Your task to perform on an android device: stop showing notifications on the lock screen Image 0: 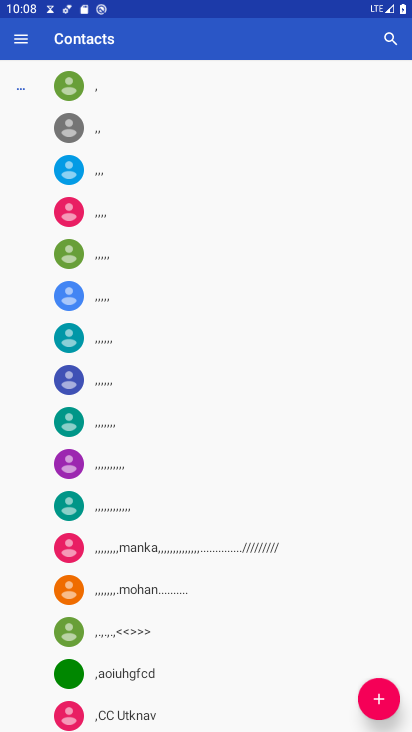
Step 0: press home button
Your task to perform on an android device: stop showing notifications on the lock screen Image 1: 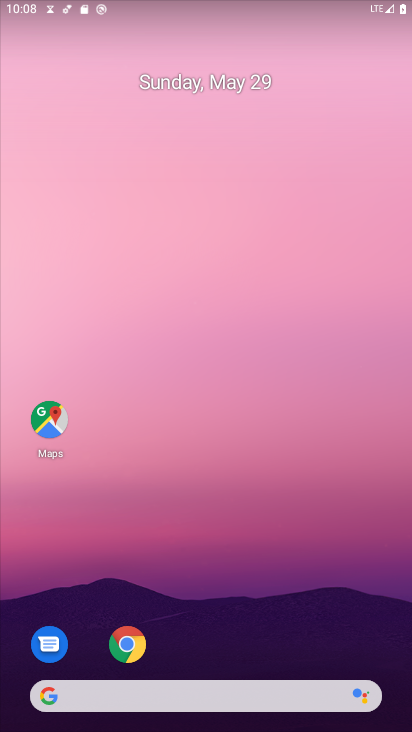
Step 1: drag from (91, 726) to (117, 146)
Your task to perform on an android device: stop showing notifications on the lock screen Image 2: 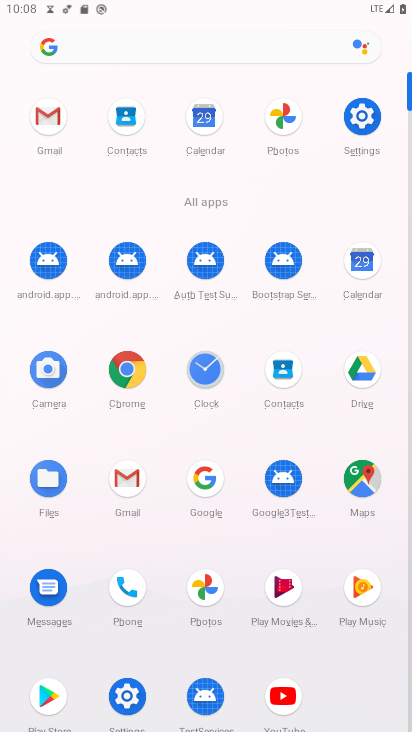
Step 2: click (125, 704)
Your task to perform on an android device: stop showing notifications on the lock screen Image 3: 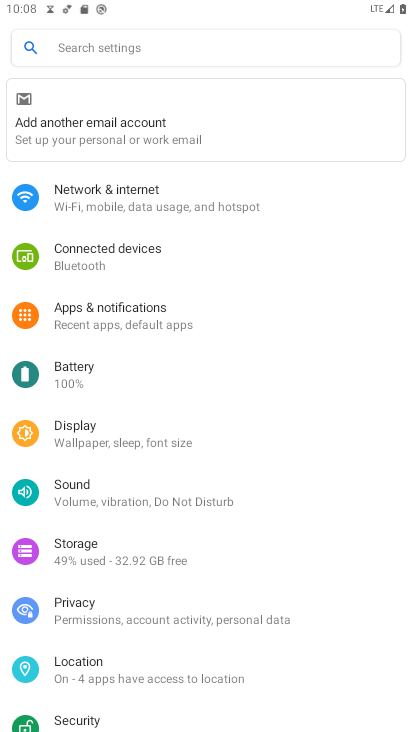
Step 3: click (111, 315)
Your task to perform on an android device: stop showing notifications on the lock screen Image 4: 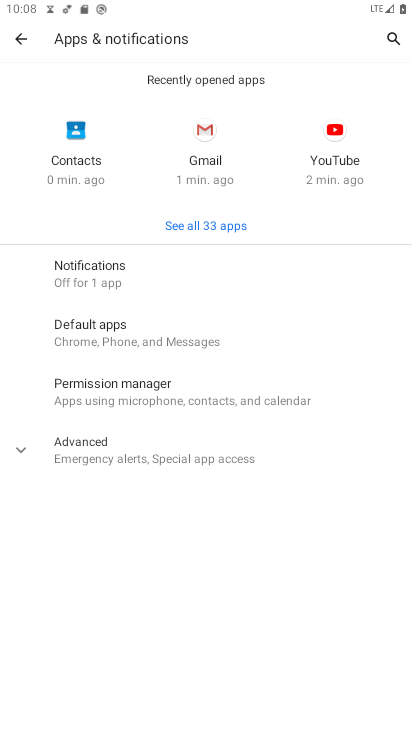
Step 4: click (115, 285)
Your task to perform on an android device: stop showing notifications on the lock screen Image 5: 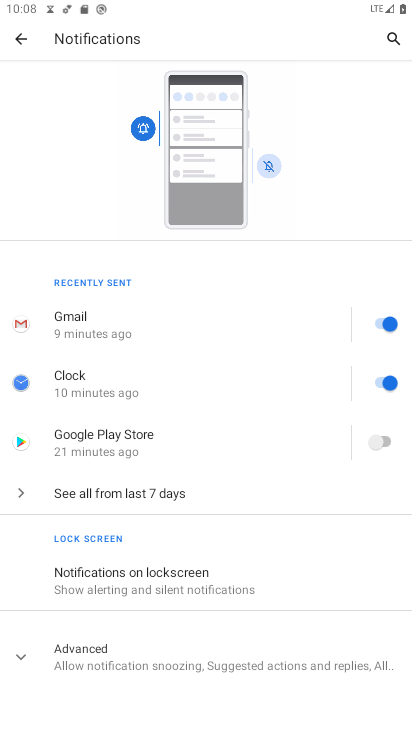
Step 5: click (165, 579)
Your task to perform on an android device: stop showing notifications on the lock screen Image 6: 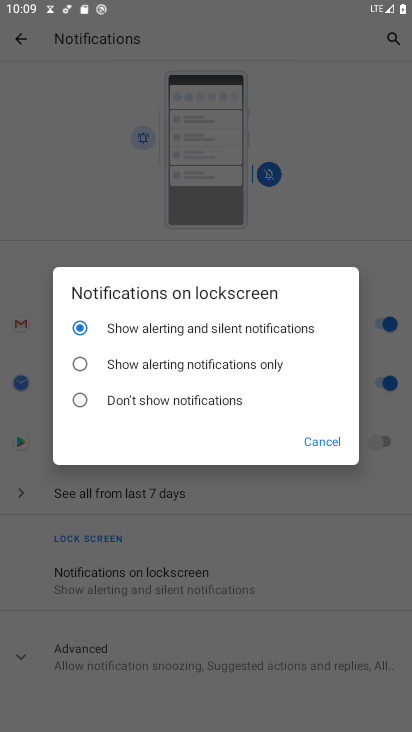
Step 6: task complete